Your task to perform on an android device: check the backup settings in the google photos Image 0: 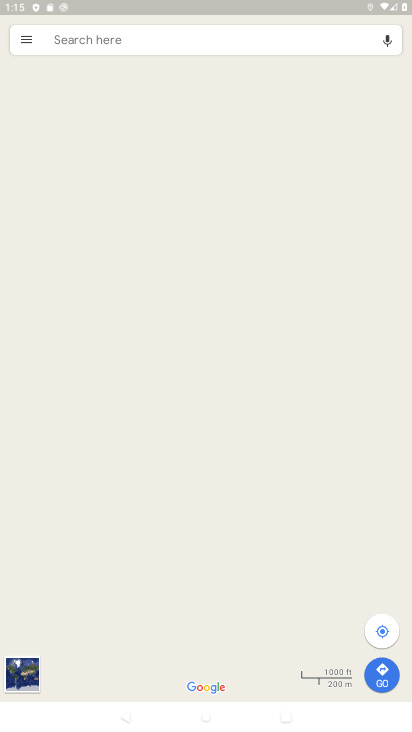
Step 0: press home button
Your task to perform on an android device: check the backup settings in the google photos Image 1: 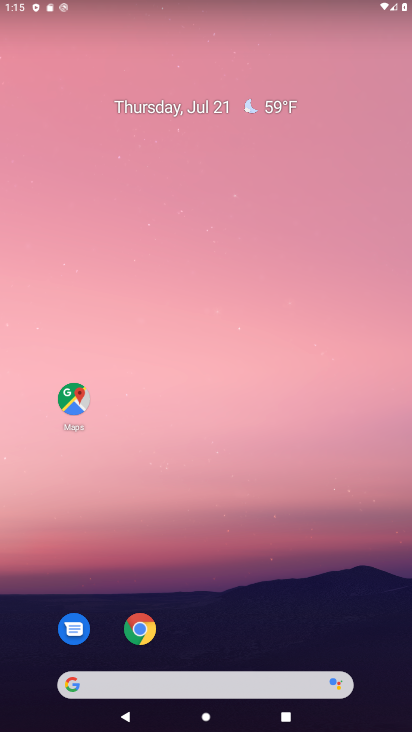
Step 1: drag from (300, 575) to (299, 322)
Your task to perform on an android device: check the backup settings in the google photos Image 2: 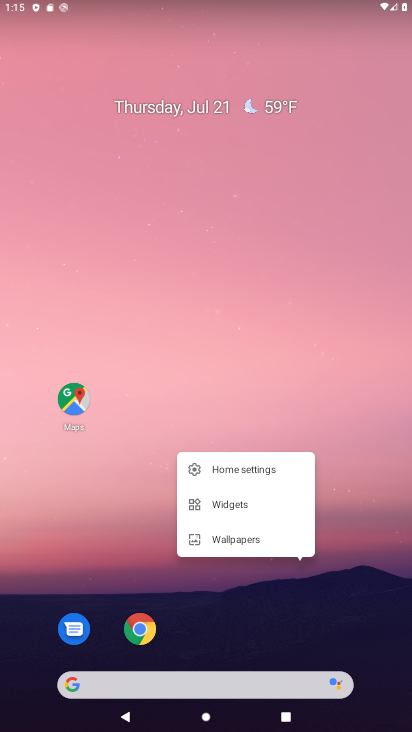
Step 2: click (251, 578)
Your task to perform on an android device: check the backup settings in the google photos Image 3: 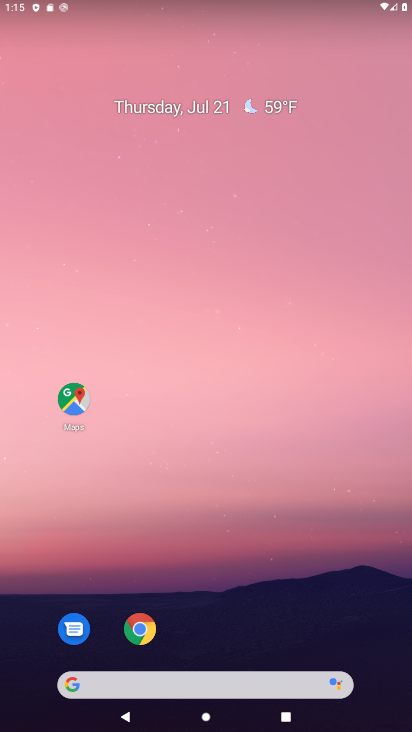
Step 3: drag from (251, 578) to (274, 366)
Your task to perform on an android device: check the backup settings in the google photos Image 4: 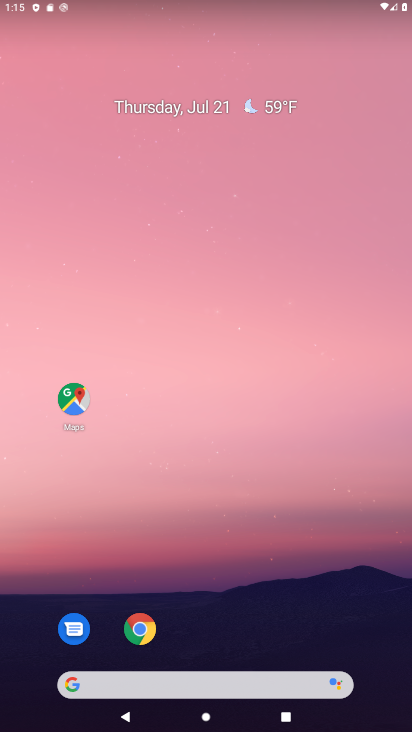
Step 4: drag from (227, 651) to (224, 40)
Your task to perform on an android device: check the backup settings in the google photos Image 5: 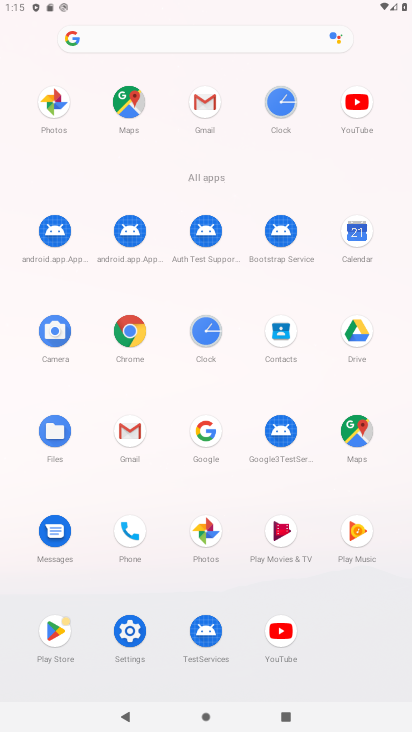
Step 5: click (211, 536)
Your task to perform on an android device: check the backup settings in the google photos Image 6: 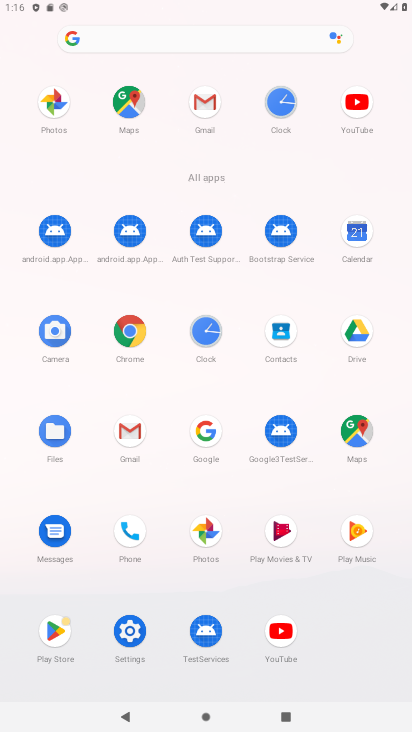
Step 6: click (206, 533)
Your task to perform on an android device: check the backup settings in the google photos Image 7: 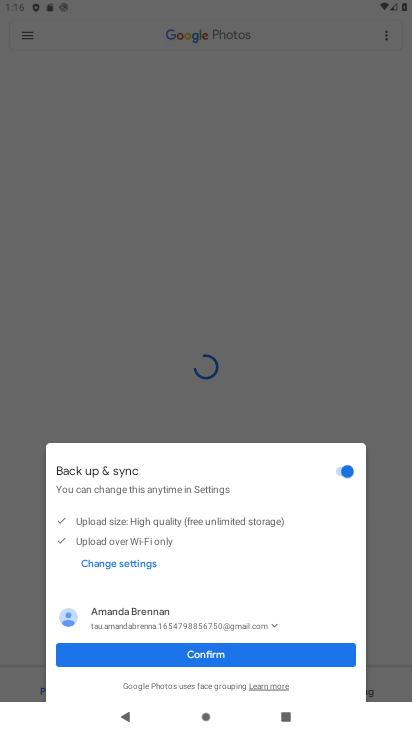
Step 7: click (201, 648)
Your task to perform on an android device: check the backup settings in the google photos Image 8: 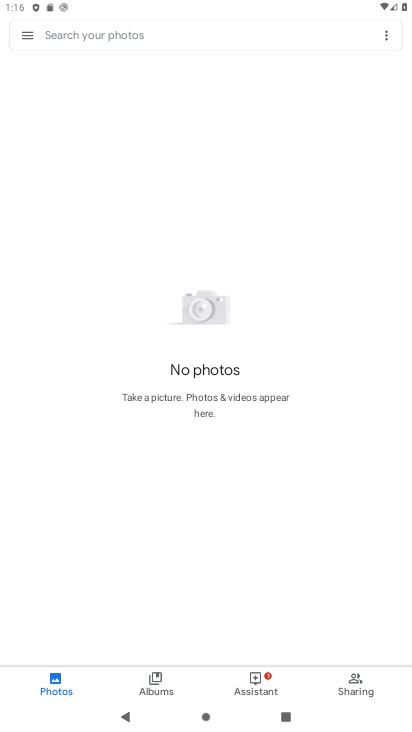
Step 8: click (25, 26)
Your task to perform on an android device: check the backup settings in the google photos Image 9: 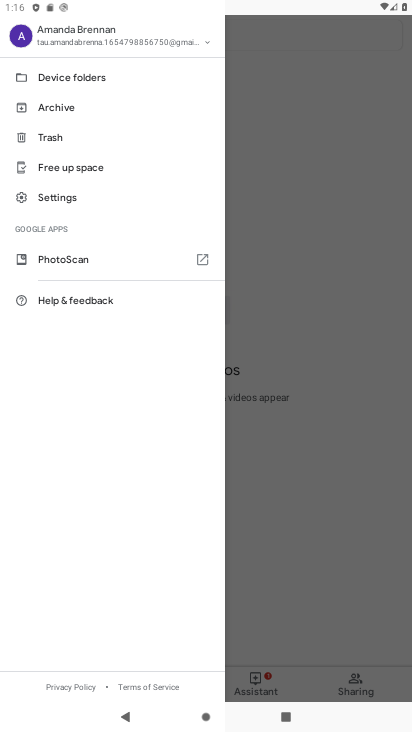
Step 9: click (65, 195)
Your task to perform on an android device: check the backup settings in the google photos Image 10: 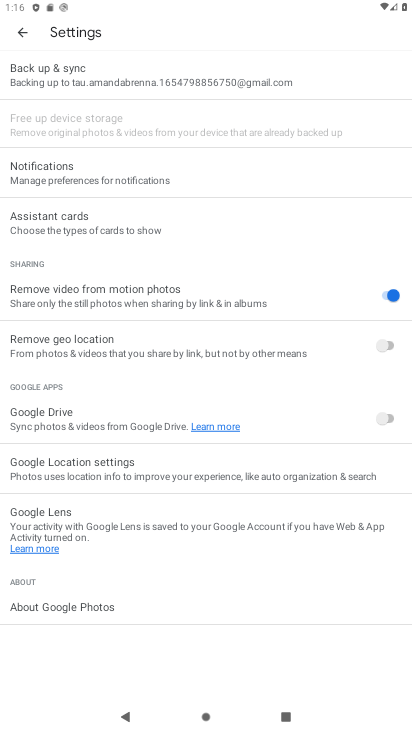
Step 10: click (127, 84)
Your task to perform on an android device: check the backup settings in the google photos Image 11: 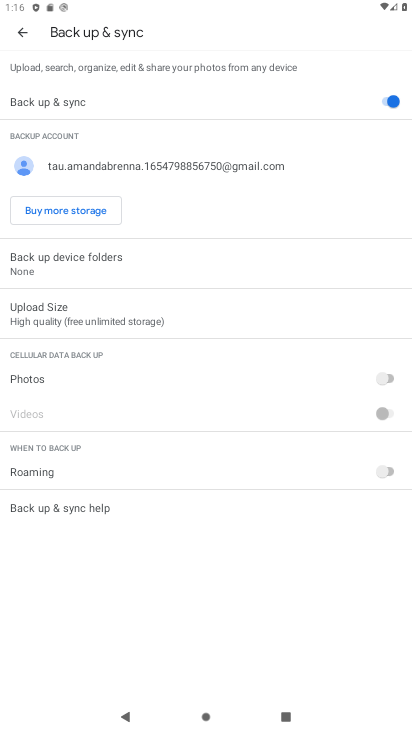
Step 11: task complete